Your task to perform on an android device: toggle priority inbox in the gmail app Image 0: 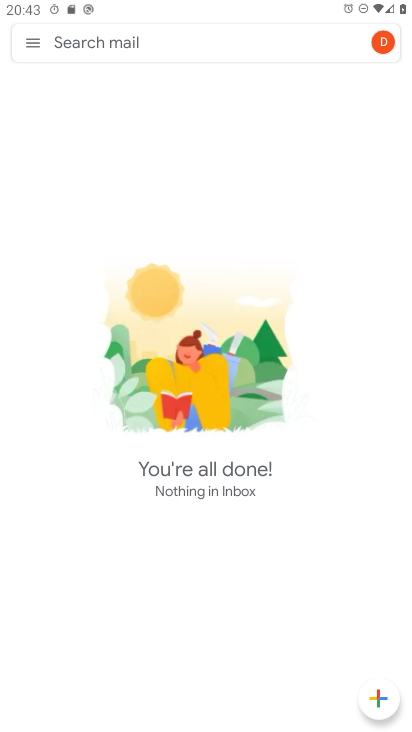
Step 0: press home button
Your task to perform on an android device: toggle priority inbox in the gmail app Image 1: 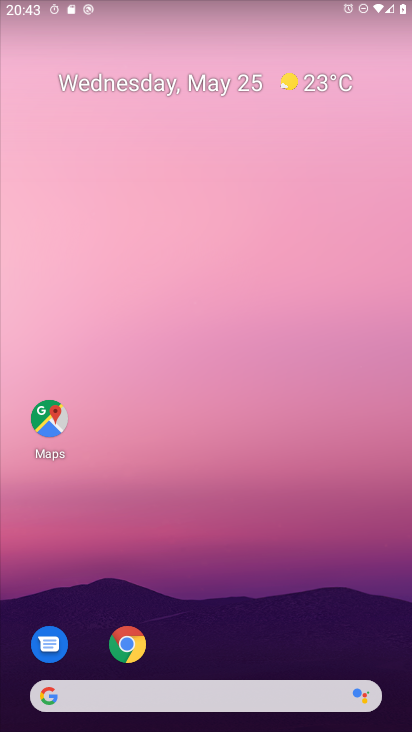
Step 1: drag from (218, 715) to (159, 66)
Your task to perform on an android device: toggle priority inbox in the gmail app Image 2: 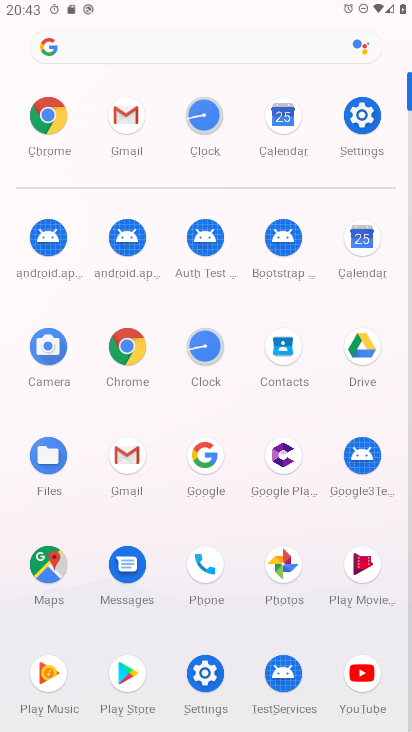
Step 2: click (112, 119)
Your task to perform on an android device: toggle priority inbox in the gmail app Image 3: 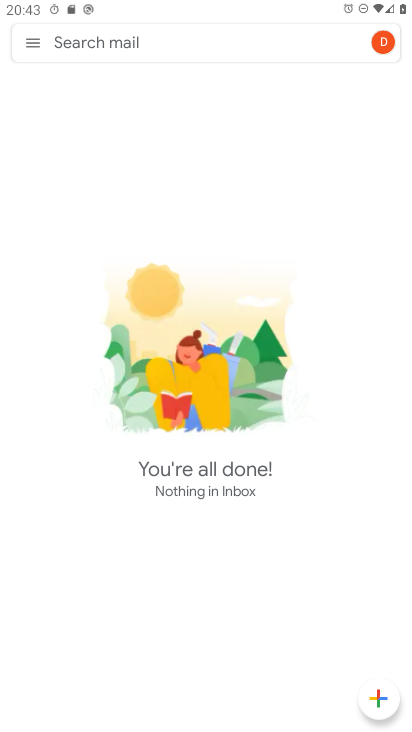
Step 3: click (35, 43)
Your task to perform on an android device: toggle priority inbox in the gmail app Image 4: 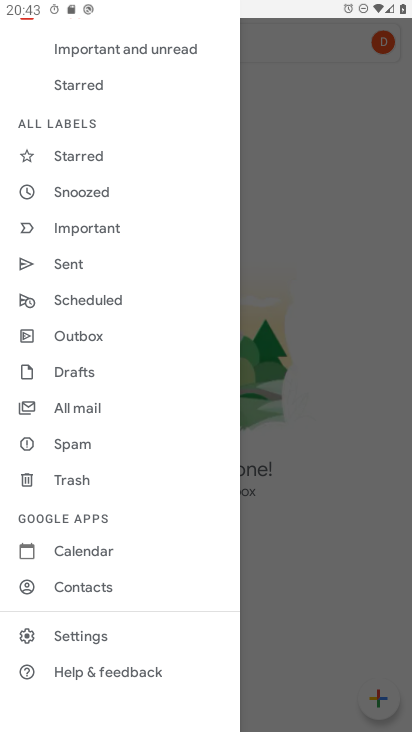
Step 4: click (67, 637)
Your task to perform on an android device: toggle priority inbox in the gmail app Image 5: 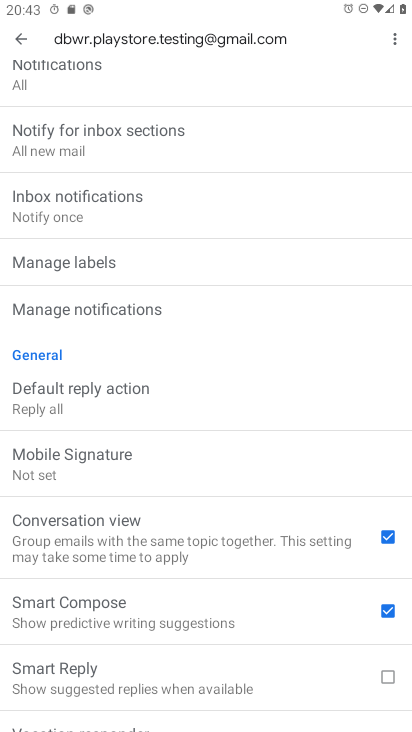
Step 5: drag from (131, 137) to (191, 364)
Your task to perform on an android device: toggle priority inbox in the gmail app Image 6: 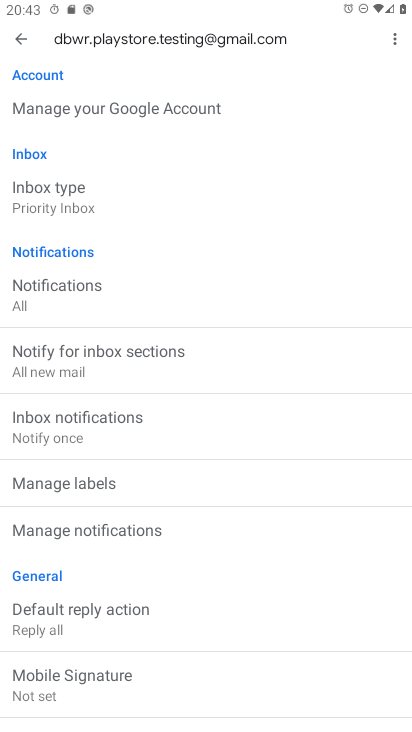
Step 6: click (52, 200)
Your task to perform on an android device: toggle priority inbox in the gmail app Image 7: 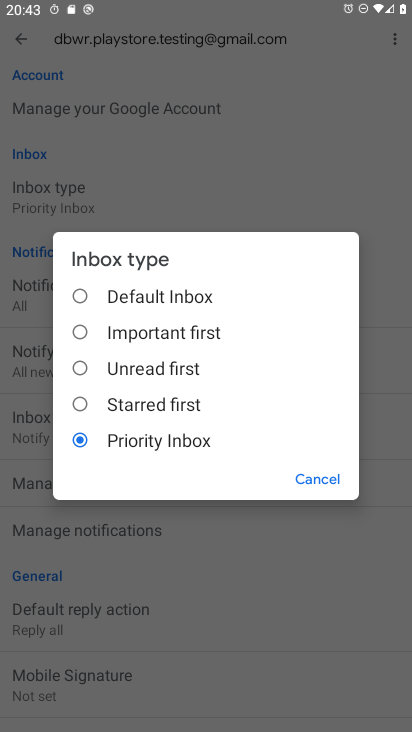
Step 7: task complete